Your task to perform on an android device: open wifi settings Image 0: 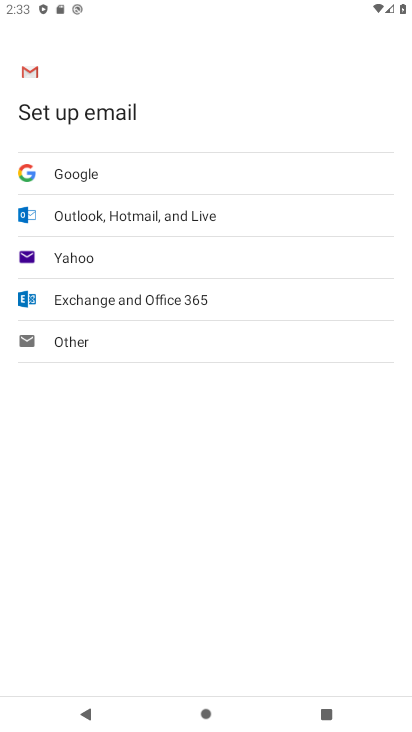
Step 0: press home button
Your task to perform on an android device: open wifi settings Image 1: 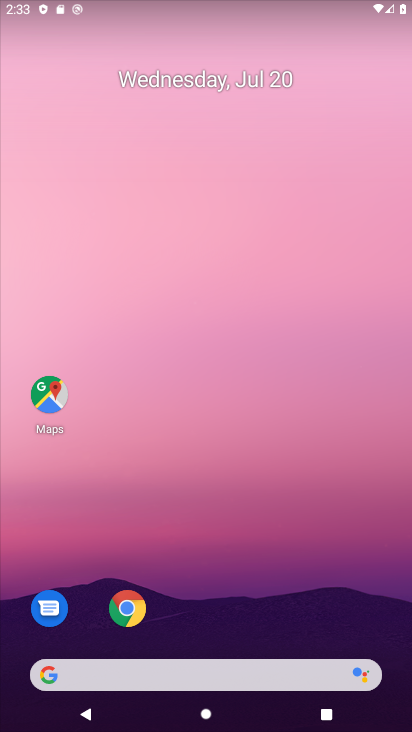
Step 1: drag from (196, 606) to (212, 181)
Your task to perform on an android device: open wifi settings Image 2: 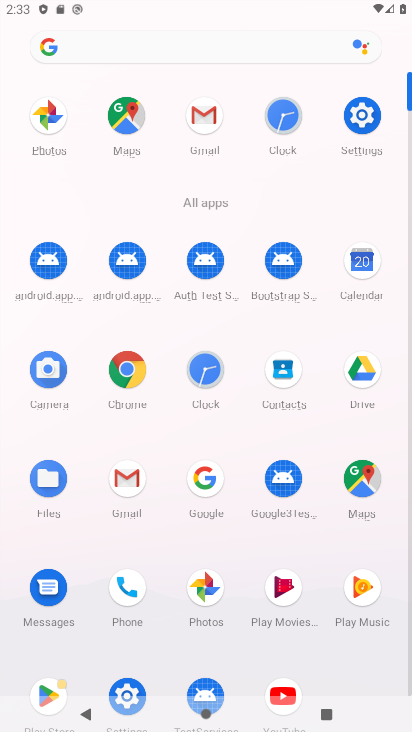
Step 2: click (363, 104)
Your task to perform on an android device: open wifi settings Image 3: 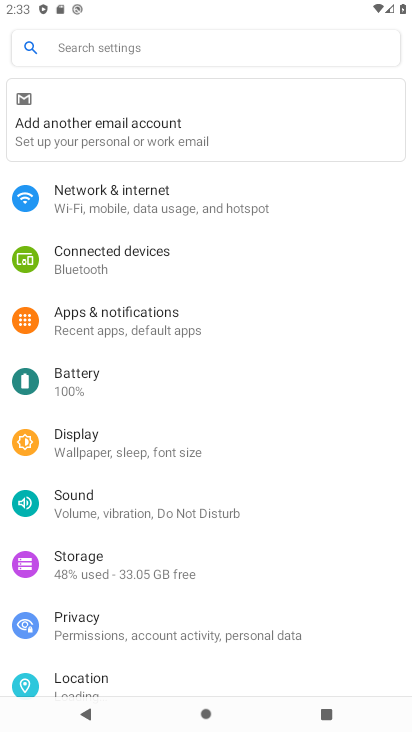
Step 3: click (131, 195)
Your task to perform on an android device: open wifi settings Image 4: 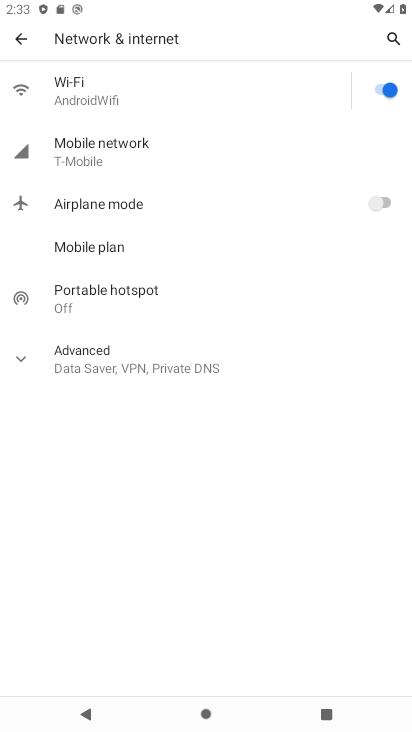
Step 4: click (132, 115)
Your task to perform on an android device: open wifi settings Image 5: 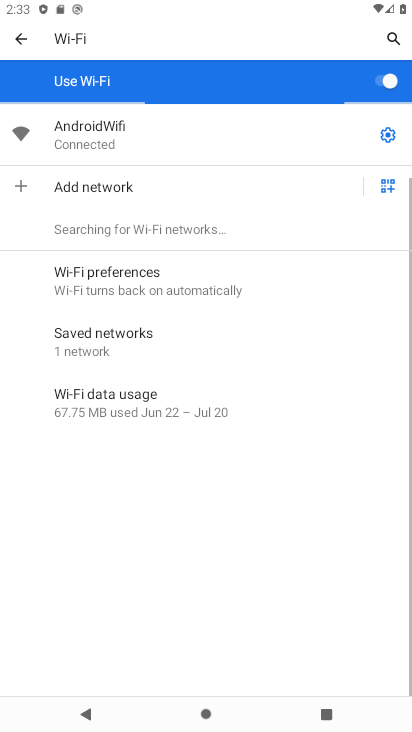
Step 5: click (392, 125)
Your task to perform on an android device: open wifi settings Image 6: 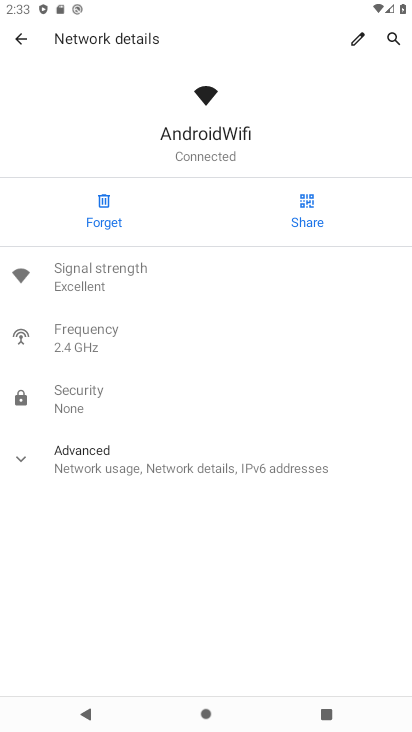
Step 6: task complete